Your task to perform on an android device: turn off wifi Image 0: 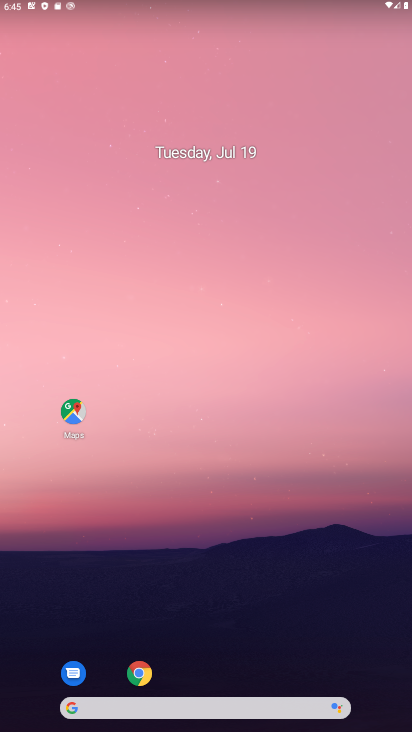
Step 0: drag from (203, 13) to (252, 538)
Your task to perform on an android device: turn off wifi Image 1: 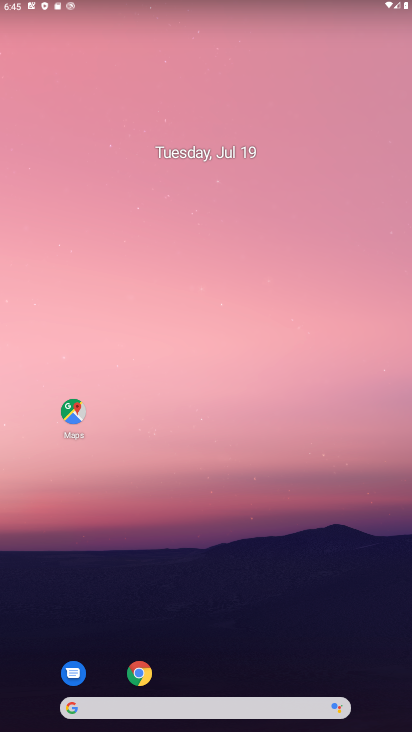
Step 1: drag from (179, 0) to (181, 518)
Your task to perform on an android device: turn off wifi Image 2: 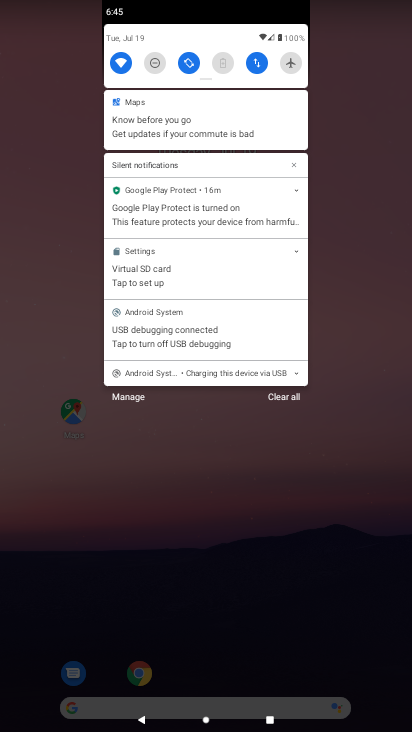
Step 2: click (122, 59)
Your task to perform on an android device: turn off wifi Image 3: 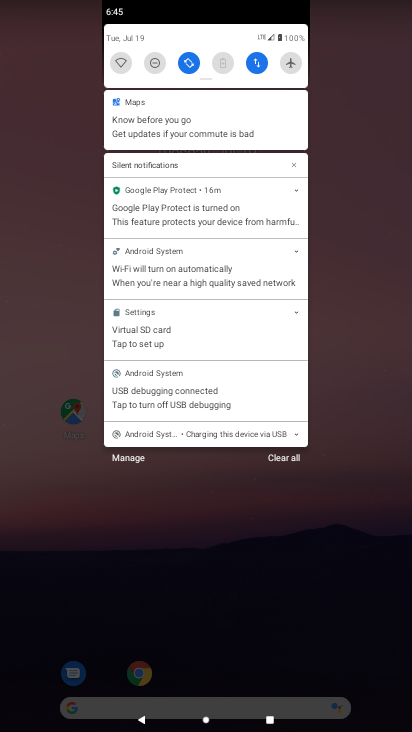
Step 3: task complete